Your task to perform on an android device: turn off picture-in-picture Image 0: 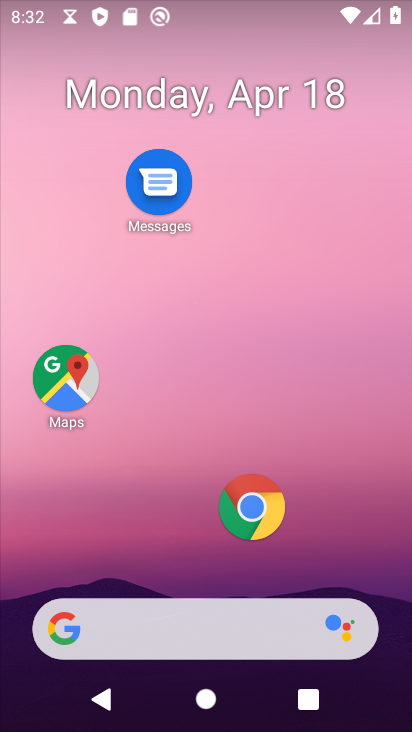
Step 0: click (246, 513)
Your task to perform on an android device: turn off picture-in-picture Image 1: 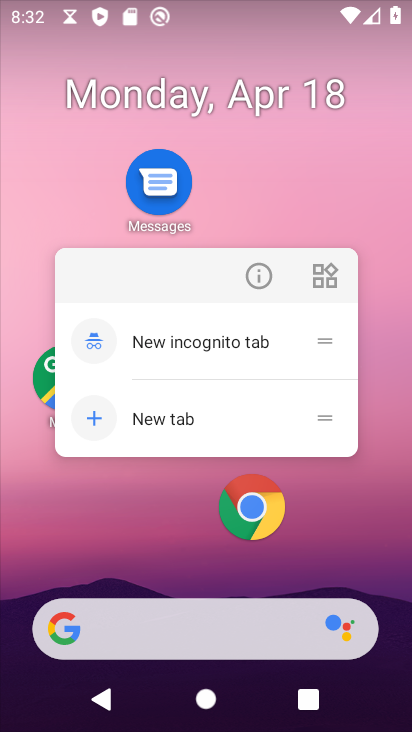
Step 1: click (262, 270)
Your task to perform on an android device: turn off picture-in-picture Image 2: 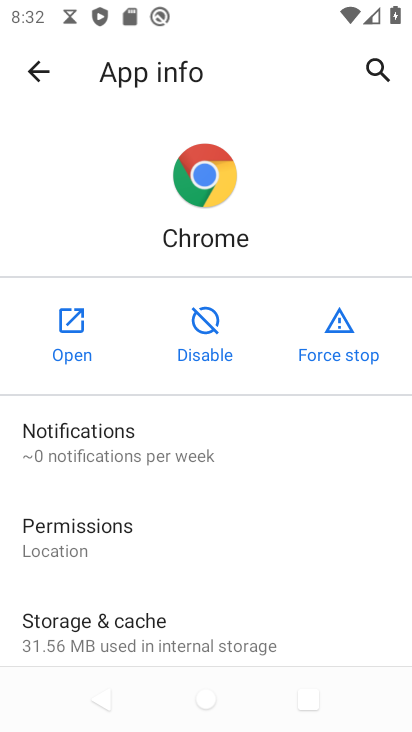
Step 2: drag from (211, 657) to (220, 416)
Your task to perform on an android device: turn off picture-in-picture Image 3: 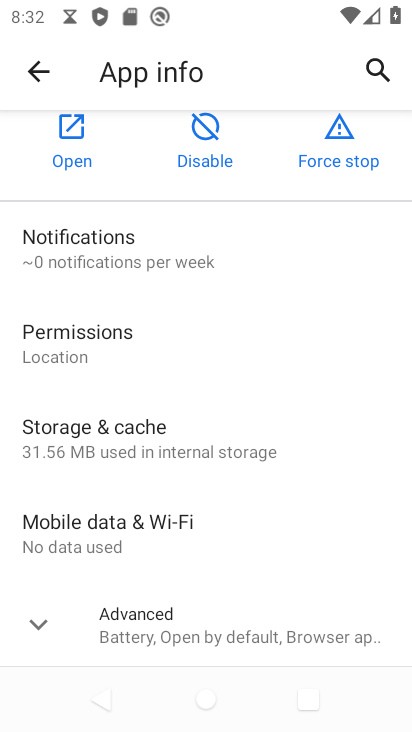
Step 3: click (181, 628)
Your task to perform on an android device: turn off picture-in-picture Image 4: 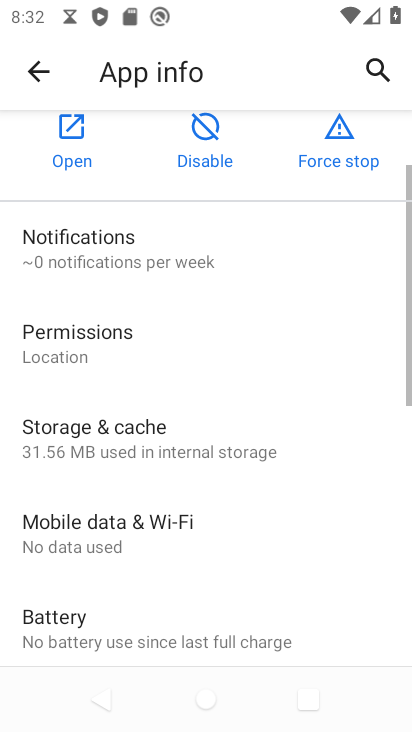
Step 4: drag from (266, 621) to (248, 302)
Your task to perform on an android device: turn off picture-in-picture Image 5: 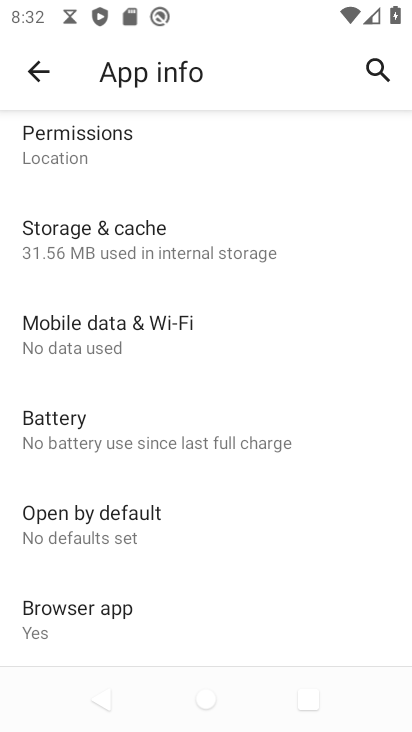
Step 5: drag from (204, 549) to (170, 303)
Your task to perform on an android device: turn off picture-in-picture Image 6: 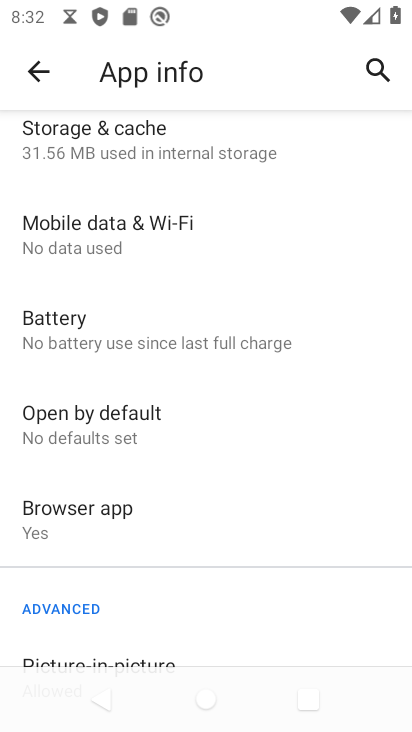
Step 6: drag from (157, 623) to (158, 353)
Your task to perform on an android device: turn off picture-in-picture Image 7: 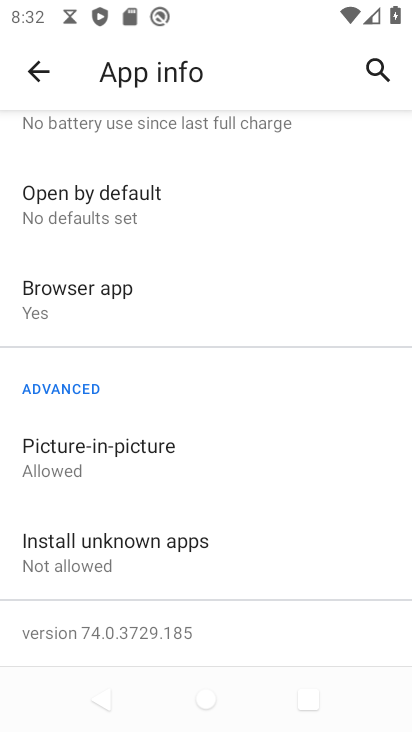
Step 7: click (41, 554)
Your task to perform on an android device: turn off picture-in-picture Image 8: 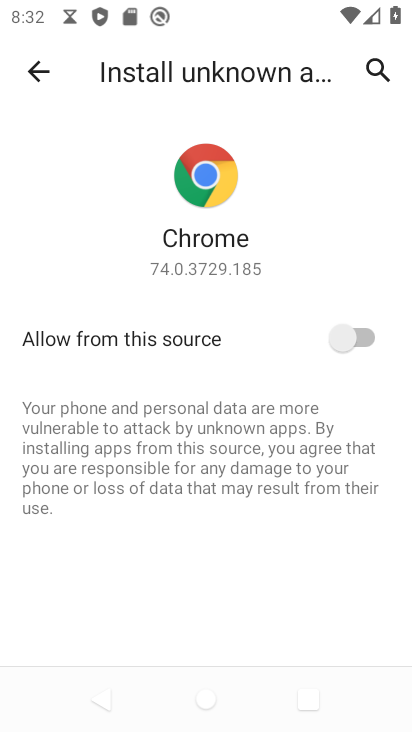
Step 8: task complete